Your task to perform on an android device: turn off location Image 0: 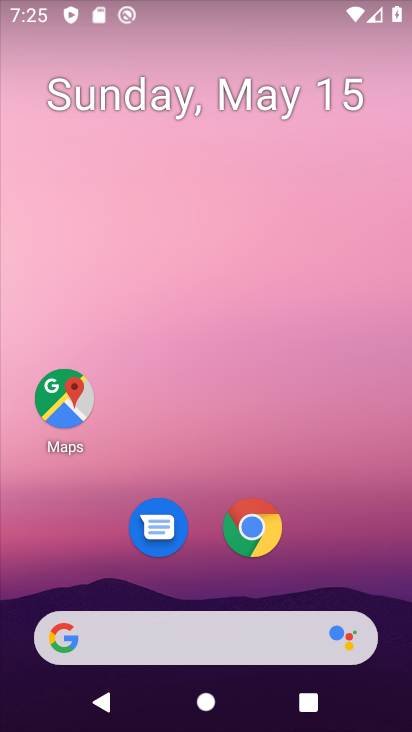
Step 0: drag from (184, 634) to (357, 95)
Your task to perform on an android device: turn off location Image 1: 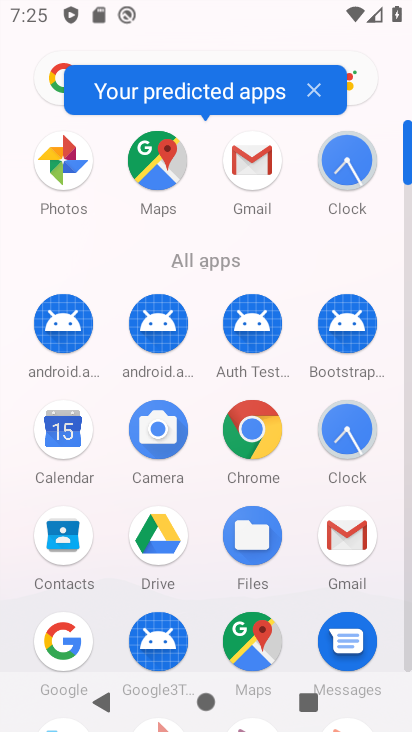
Step 1: drag from (182, 599) to (400, 81)
Your task to perform on an android device: turn off location Image 2: 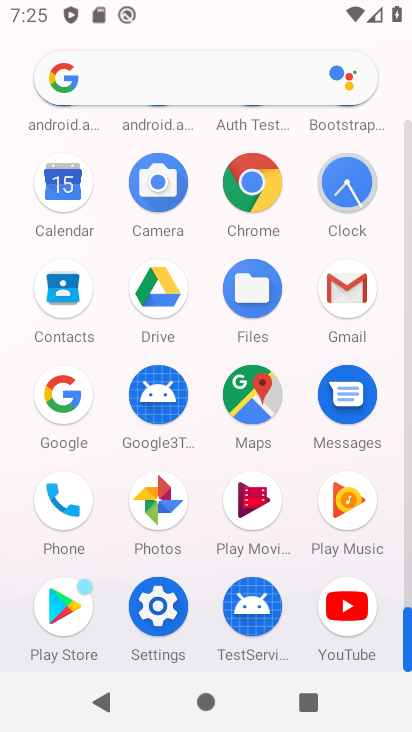
Step 2: click (157, 604)
Your task to perform on an android device: turn off location Image 3: 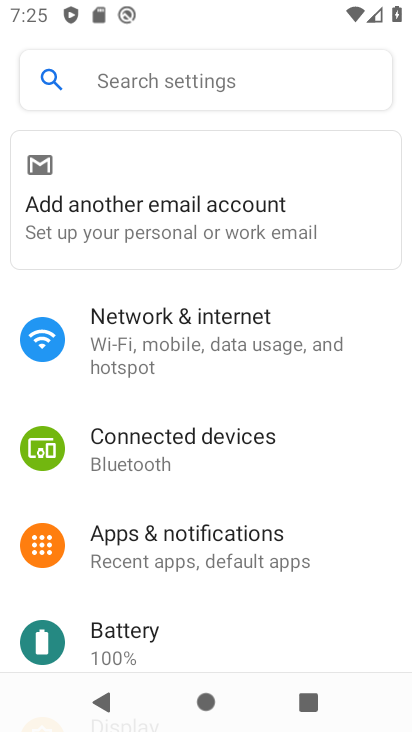
Step 3: drag from (183, 633) to (406, 144)
Your task to perform on an android device: turn off location Image 4: 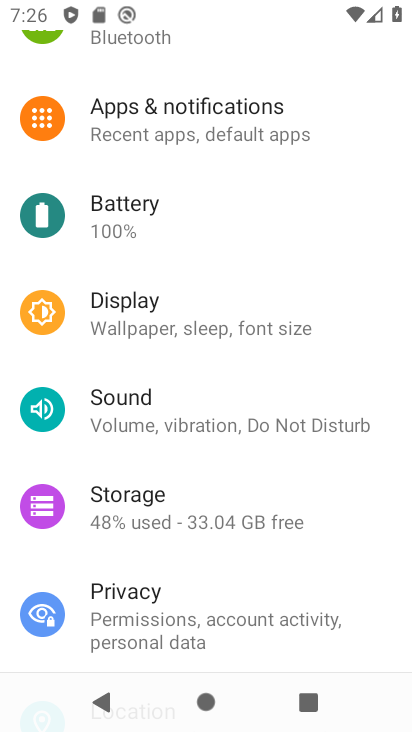
Step 4: drag from (243, 444) to (367, 188)
Your task to perform on an android device: turn off location Image 5: 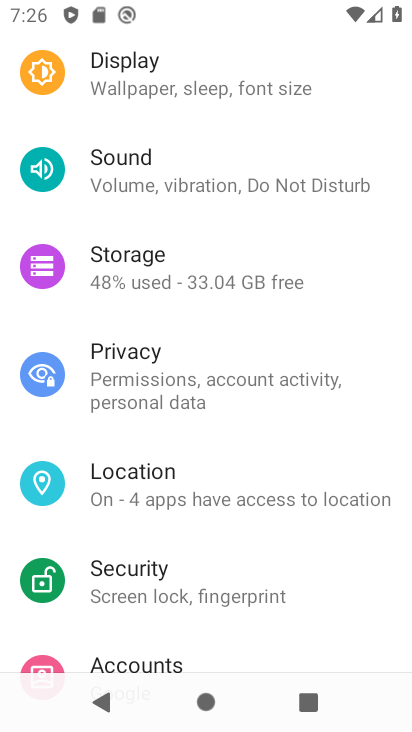
Step 5: click (150, 471)
Your task to perform on an android device: turn off location Image 6: 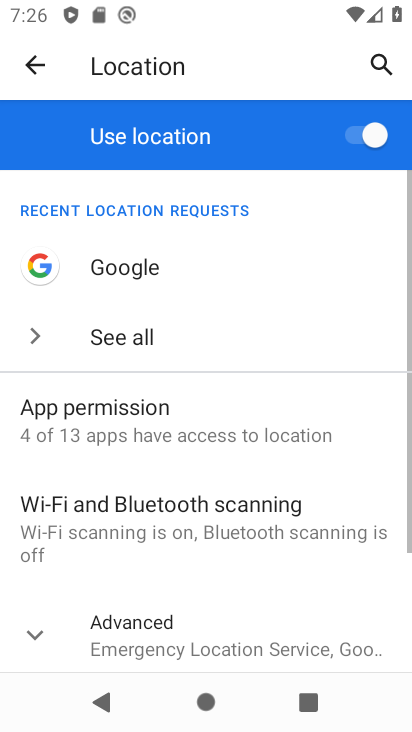
Step 6: click (357, 134)
Your task to perform on an android device: turn off location Image 7: 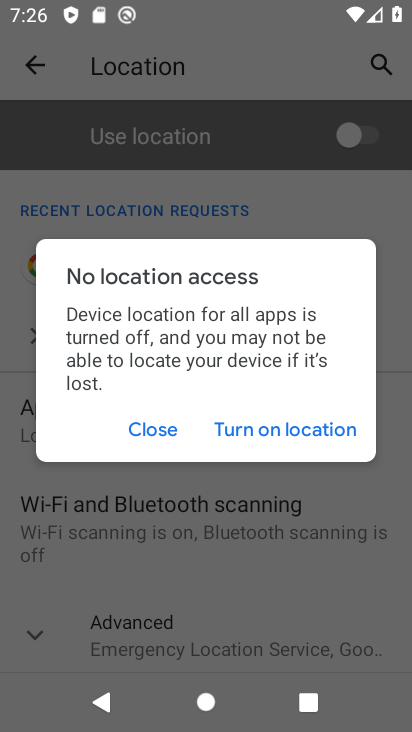
Step 7: click (176, 437)
Your task to perform on an android device: turn off location Image 8: 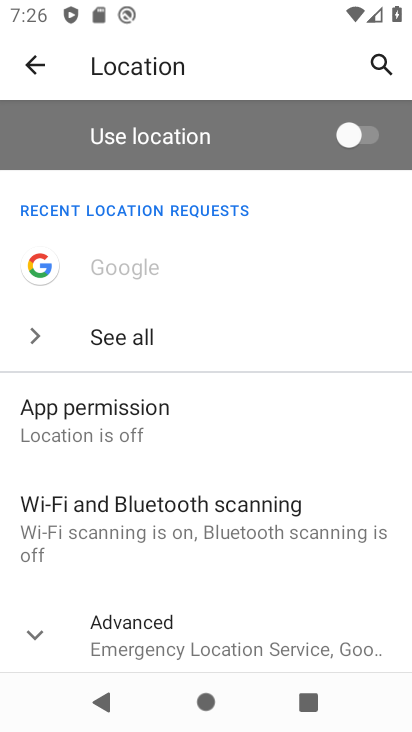
Step 8: task complete